Your task to perform on an android device: Go to wifi settings Image 0: 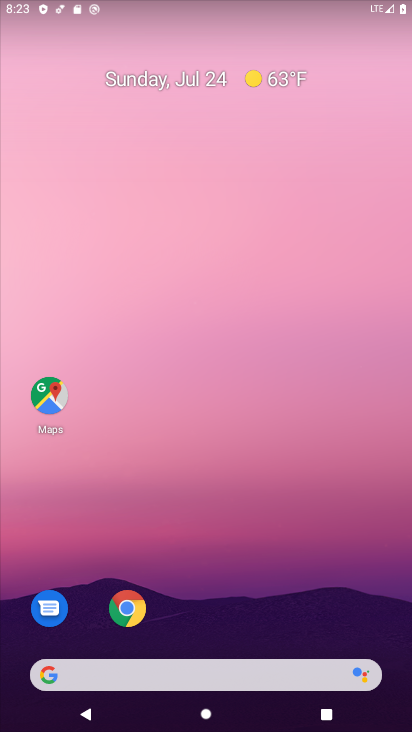
Step 0: press back button
Your task to perform on an android device: Go to wifi settings Image 1: 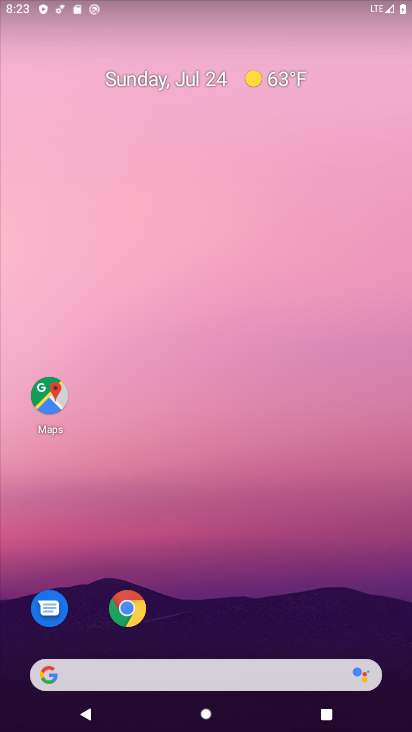
Step 1: drag from (228, 639) to (229, 60)
Your task to perform on an android device: Go to wifi settings Image 2: 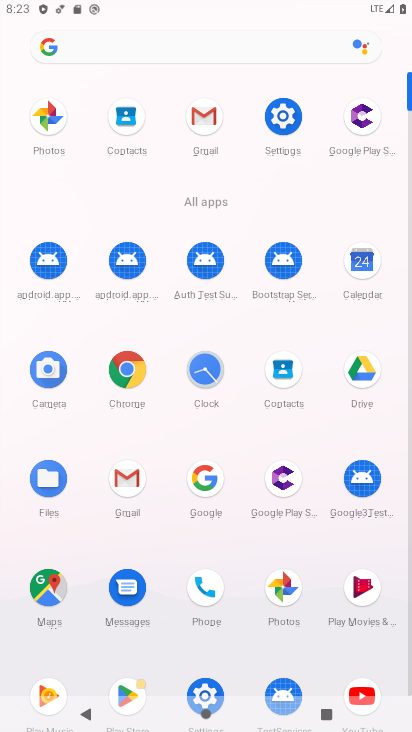
Step 2: click (277, 113)
Your task to perform on an android device: Go to wifi settings Image 3: 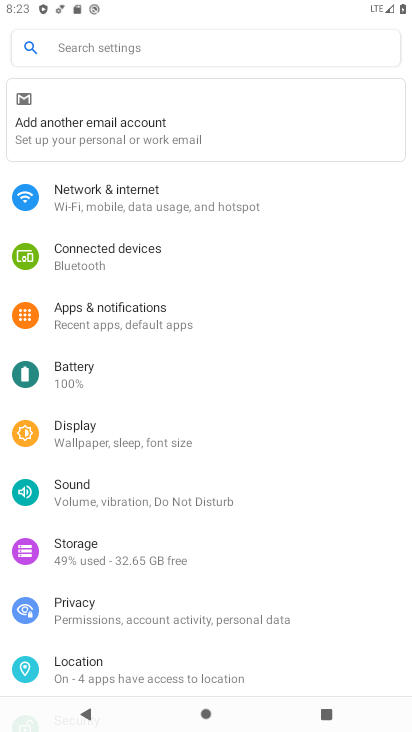
Step 3: click (119, 203)
Your task to perform on an android device: Go to wifi settings Image 4: 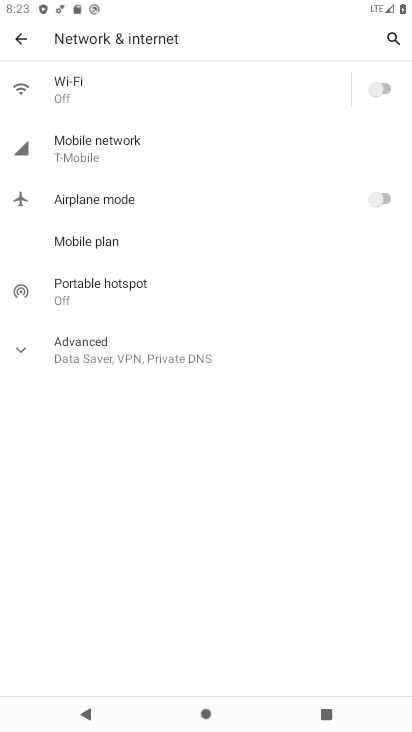
Step 4: click (85, 98)
Your task to perform on an android device: Go to wifi settings Image 5: 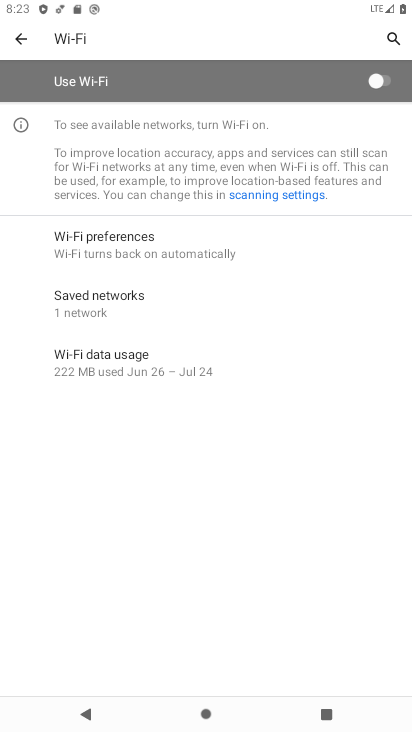
Step 5: task complete